Your task to perform on an android device: move an email to a new category in the gmail app Image 0: 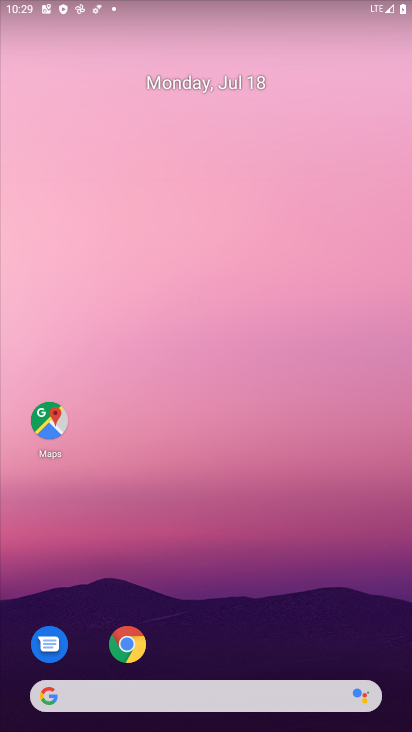
Step 0: drag from (226, 633) to (312, 160)
Your task to perform on an android device: move an email to a new category in the gmail app Image 1: 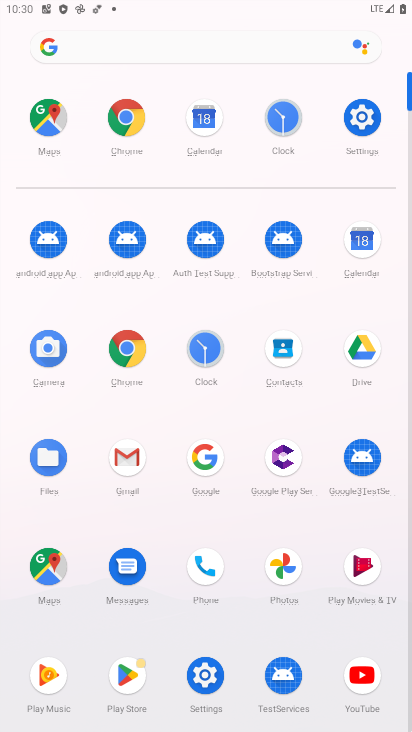
Step 1: click (121, 461)
Your task to perform on an android device: move an email to a new category in the gmail app Image 2: 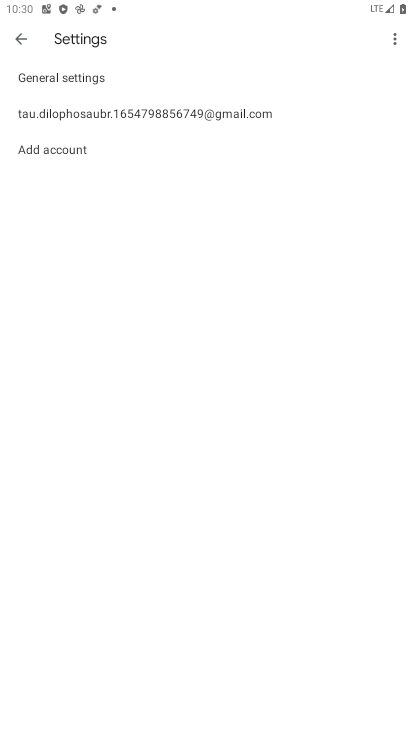
Step 2: press back button
Your task to perform on an android device: move an email to a new category in the gmail app Image 3: 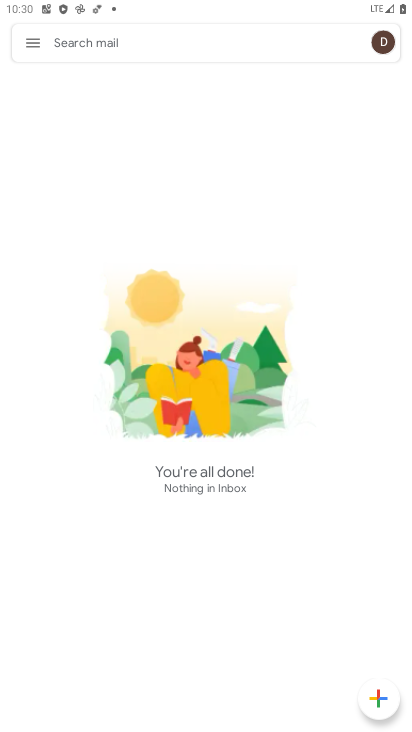
Step 3: click (36, 43)
Your task to perform on an android device: move an email to a new category in the gmail app Image 4: 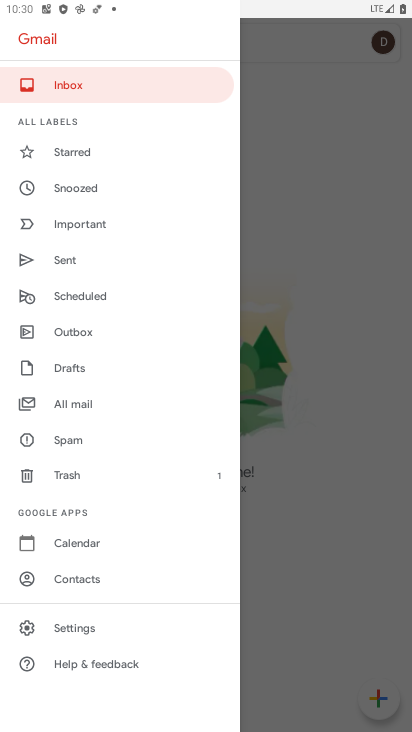
Step 4: drag from (132, 399) to (158, 318)
Your task to perform on an android device: move an email to a new category in the gmail app Image 5: 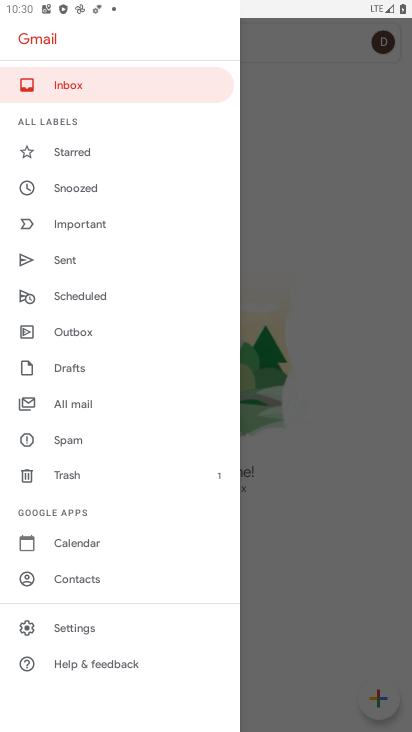
Step 5: click (116, 405)
Your task to perform on an android device: move an email to a new category in the gmail app Image 6: 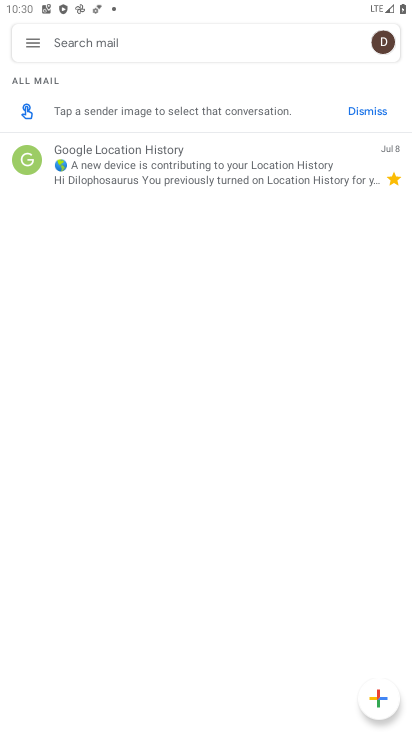
Step 6: click (220, 167)
Your task to perform on an android device: move an email to a new category in the gmail app Image 7: 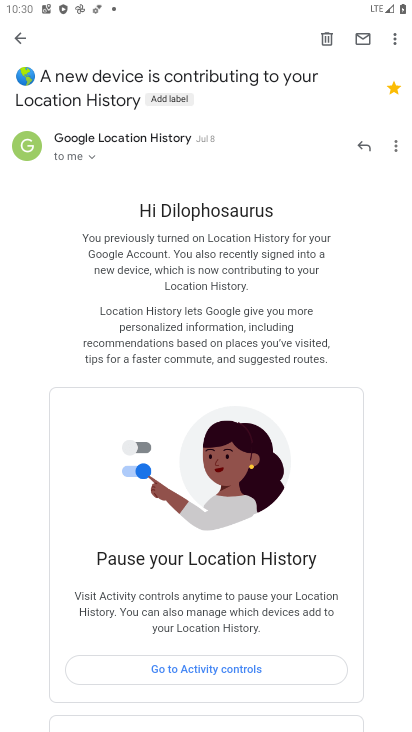
Step 7: click (391, 40)
Your task to perform on an android device: move an email to a new category in the gmail app Image 8: 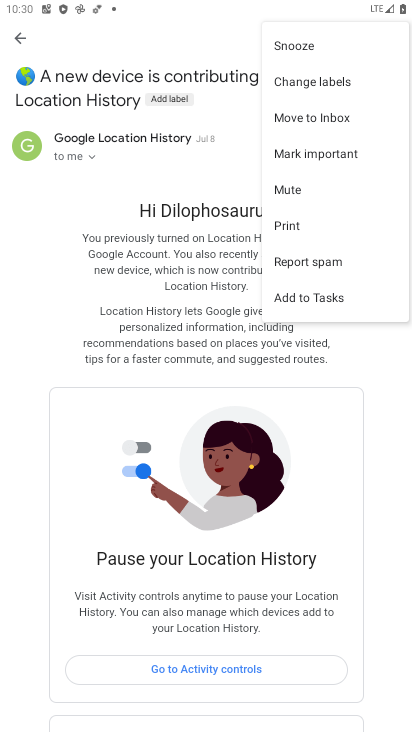
Step 8: click (334, 118)
Your task to perform on an android device: move an email to a new category in the gmail app Image 9: 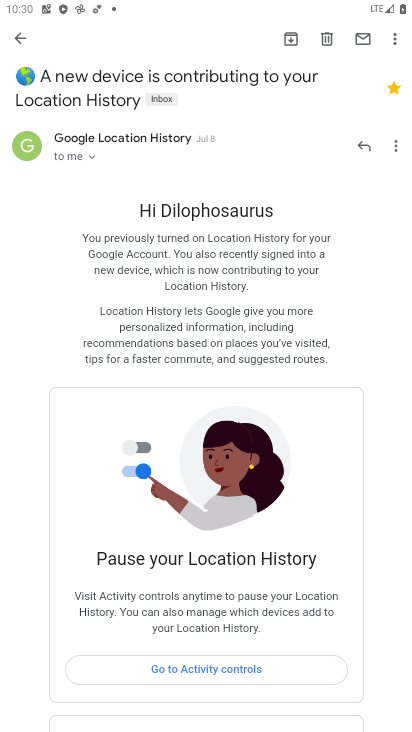
Step 9: task complete